Your task to perform on an android device: Go to ESPN.com Image 0: 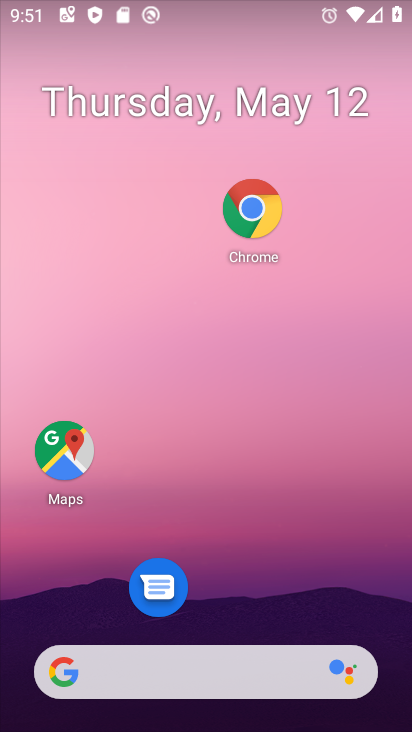
Step 0: drag from (298, 593) to (320, 183)
Your task to perform on an android device: Go to ESPN.com Image 1: 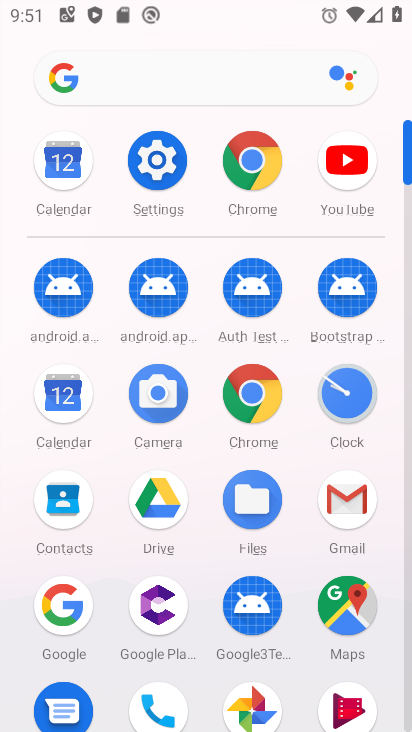
Step 1: click (249, 149)
Your task to perform on an android device: Go to ESPN.com Image 2: 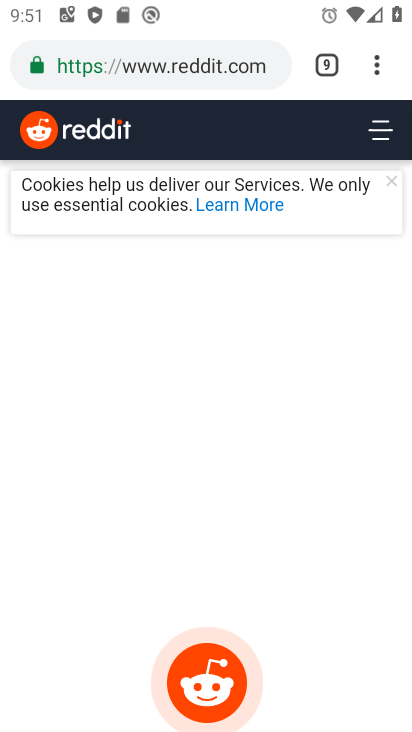
Step 2: click (356, 58)
Your task to perform on an android device: Go to ESPN.com Image 3: 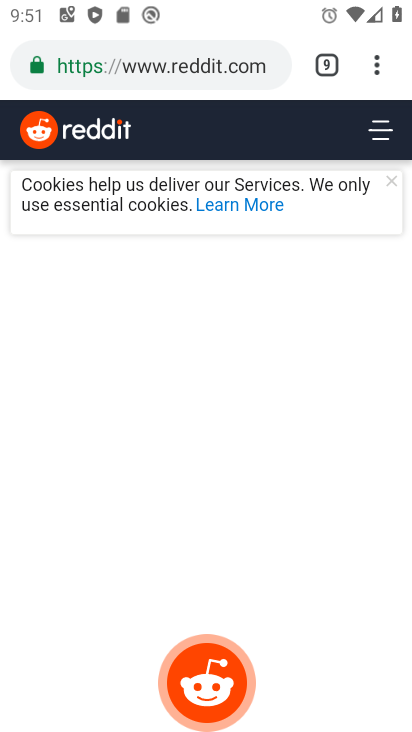
Step 3: click (361, 53)
Your task to perform on an android device: Go to ESPN.com Image 4: 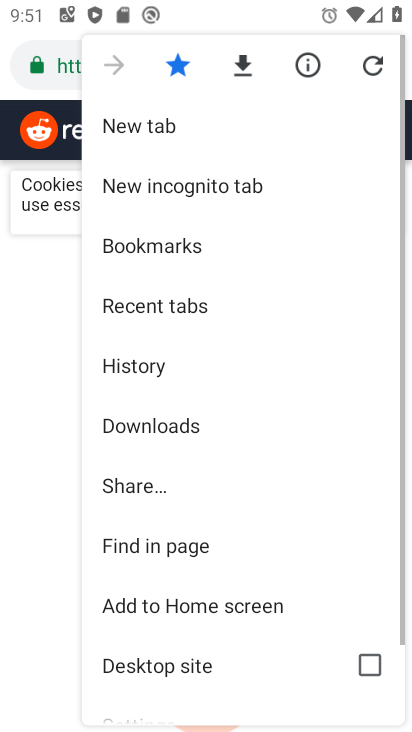
Step 4: click (143, 135)
Your task to perform on an android device: Go to ESPN.com Image 5: 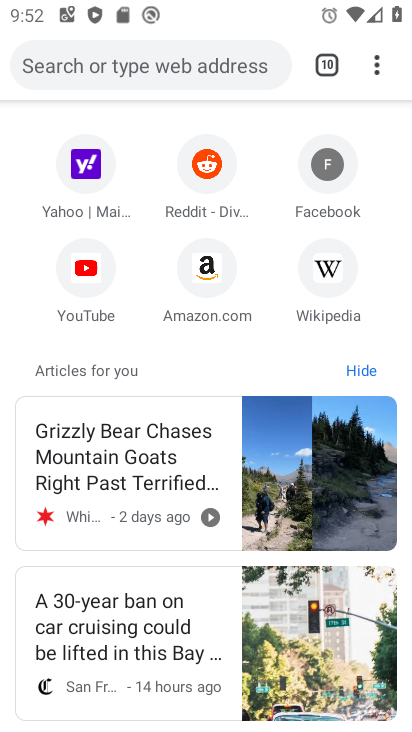
Step 5: click (159, 61)
Your task to perform on an android device: Go to ESPN.com Image 6: 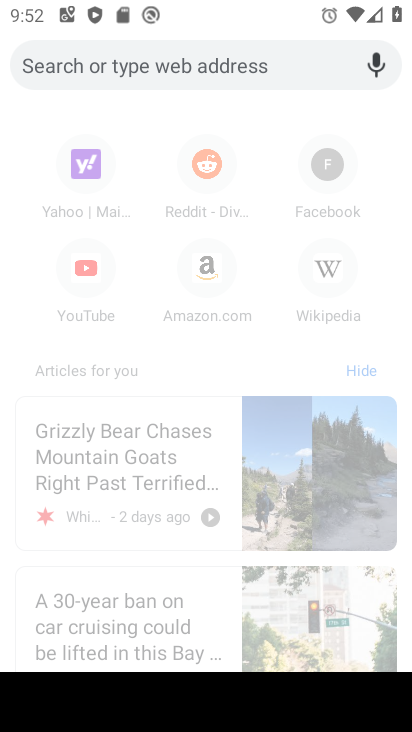
Step 6: type "ESPN.com"
Your task to perform on an android device: Go to ESPN.com Image 7: 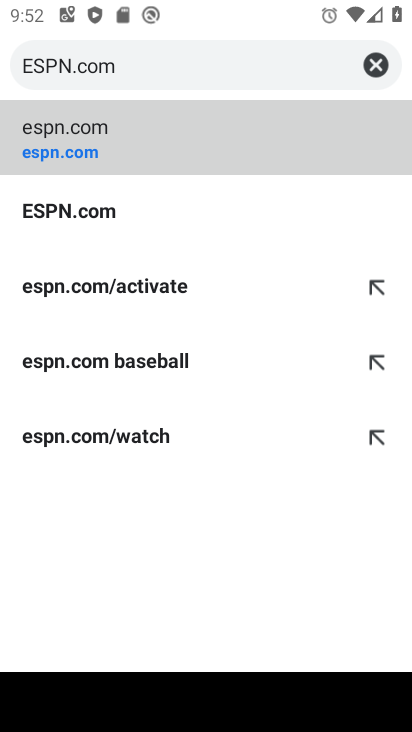
Step 7: click (117, 202)
Your task to perform on an android device: Go to ESPN.com Image 8: 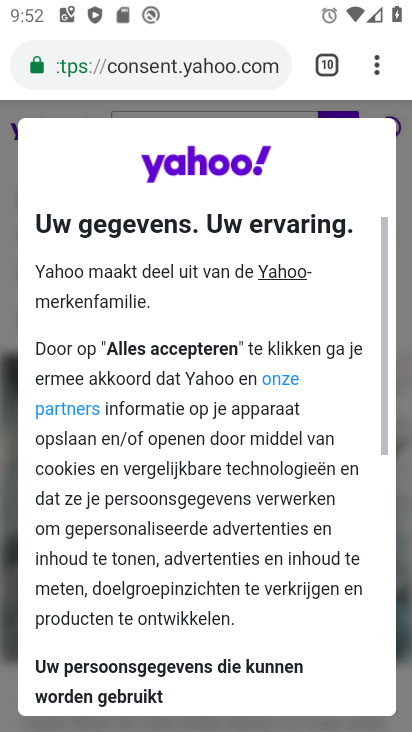
Step 8: press back button
Your task to perform on an android device: Go to ESPN.com Image 9: 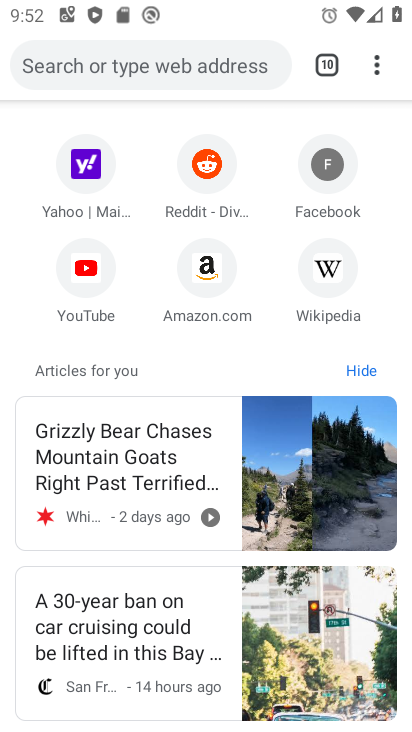
Step 9: click (155, 56)
Your task to perform on an android device: Go to ESPN.com Image 10: 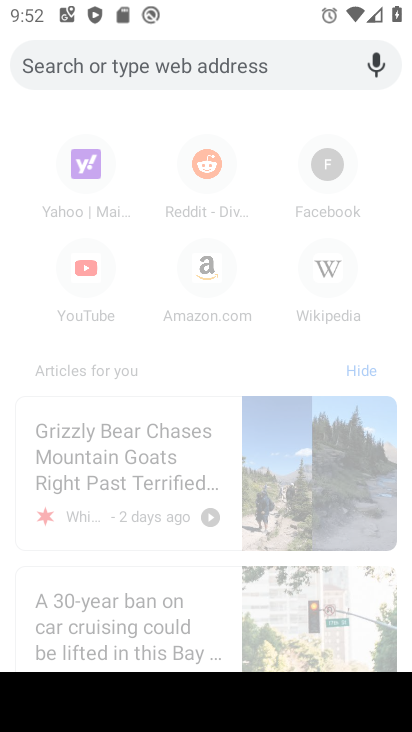
Step 10: type " ESPN.com"
Your task to perform on an android device: Go to ESPN.com Image 11: 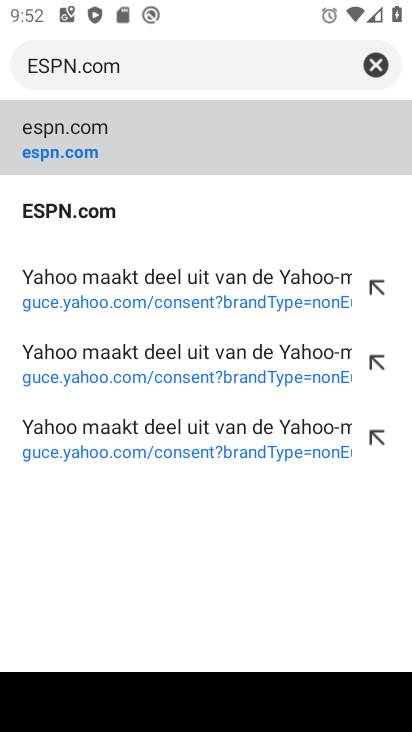
Step 11: click (126, 139)
Your task to perform on an android device: Go to ESPN.com Image 12: 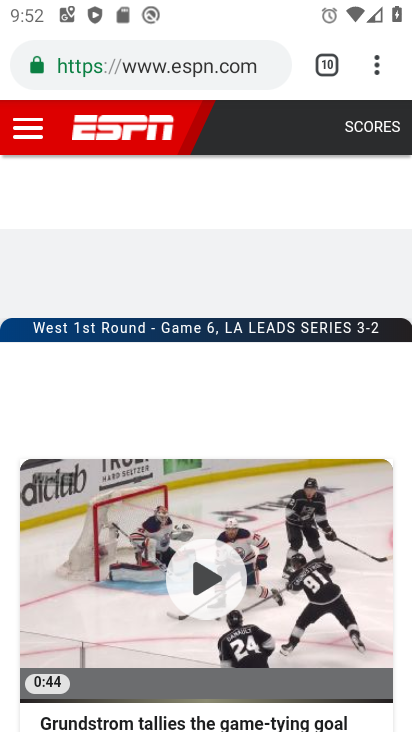
Step 12: task complete